Your task to perform on an android device: Search for the most popular coffee table on Crate & Barrel Image 0: 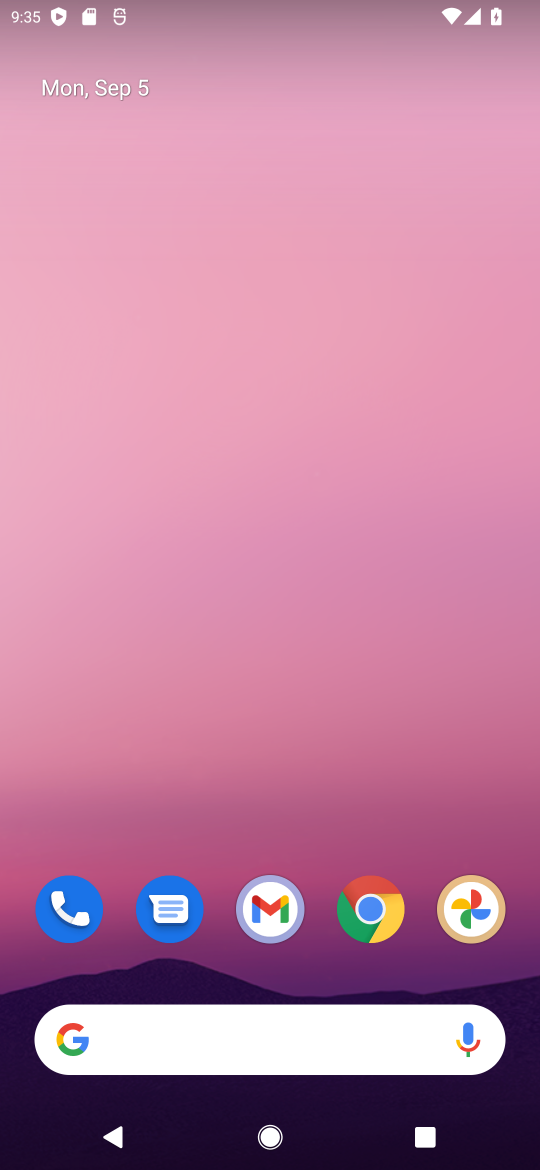
Step 0: click (371, 954)
Your task to perform on an android device: Search for the most popular coffee table on Crate & Barrel Image 1: 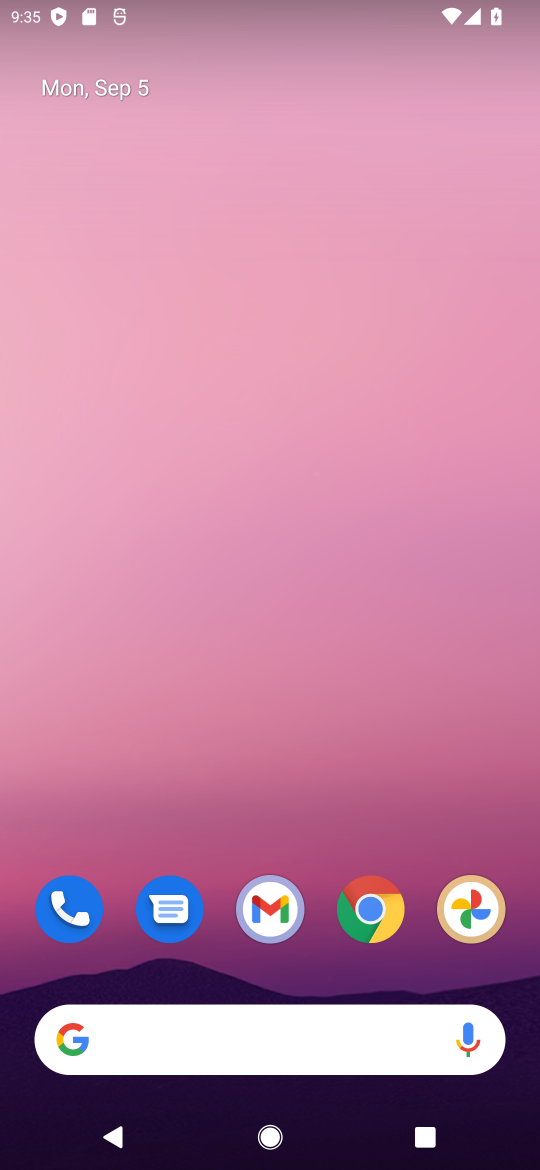
Step 1: task complete